Your task to perform on an android device: Search for the best rated book on Goodreads. Image 0: 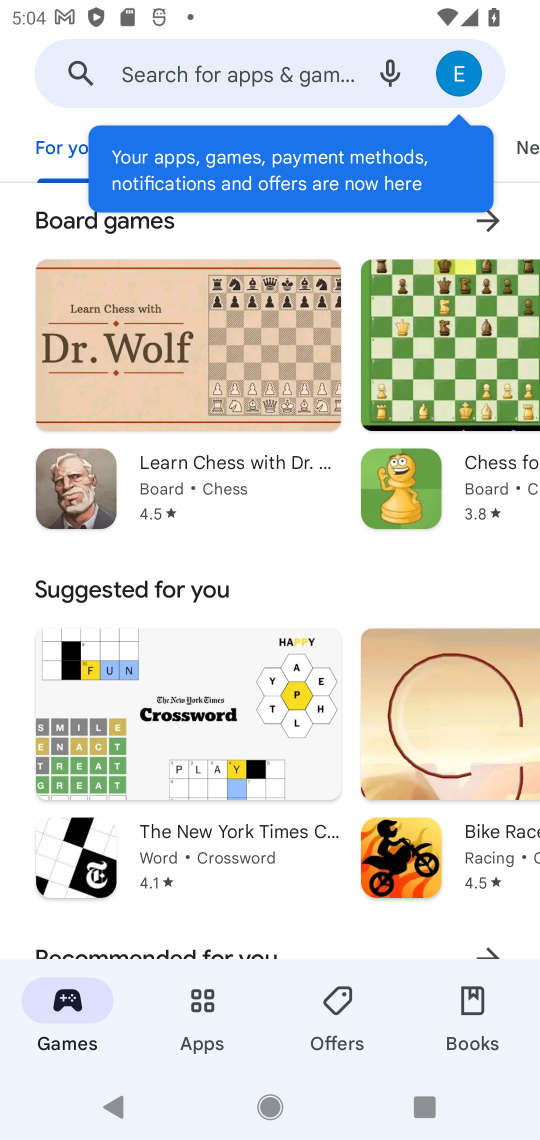
Step 0: press home button
Your task to perform on an android device: Search for the best rated book on Goodreads. Image 1: 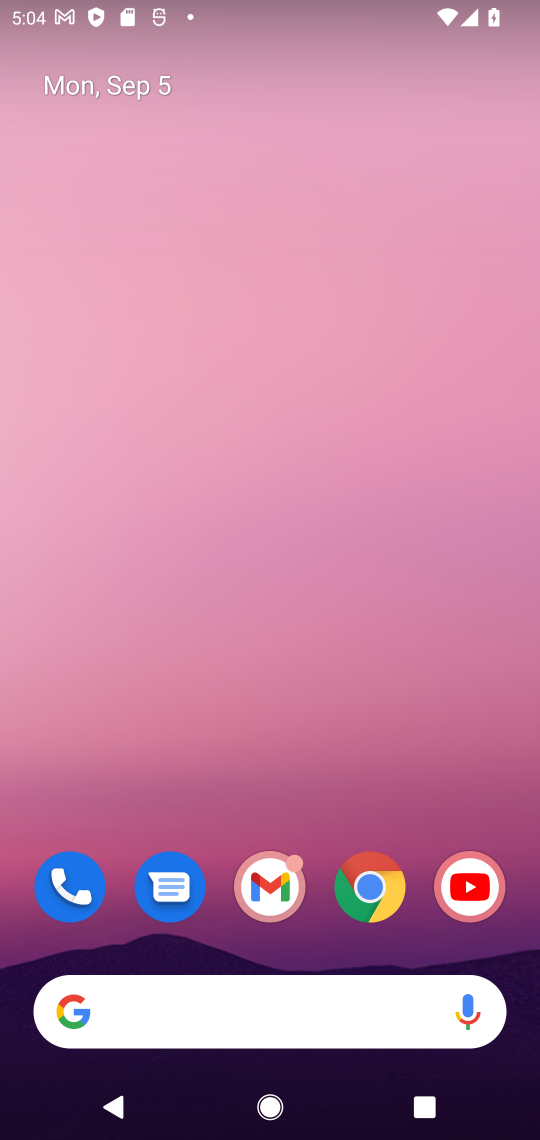
Step 1: click (363, 885)
Your task to perform on an android device: Search for the best rated book on Goodreads. Image 2: 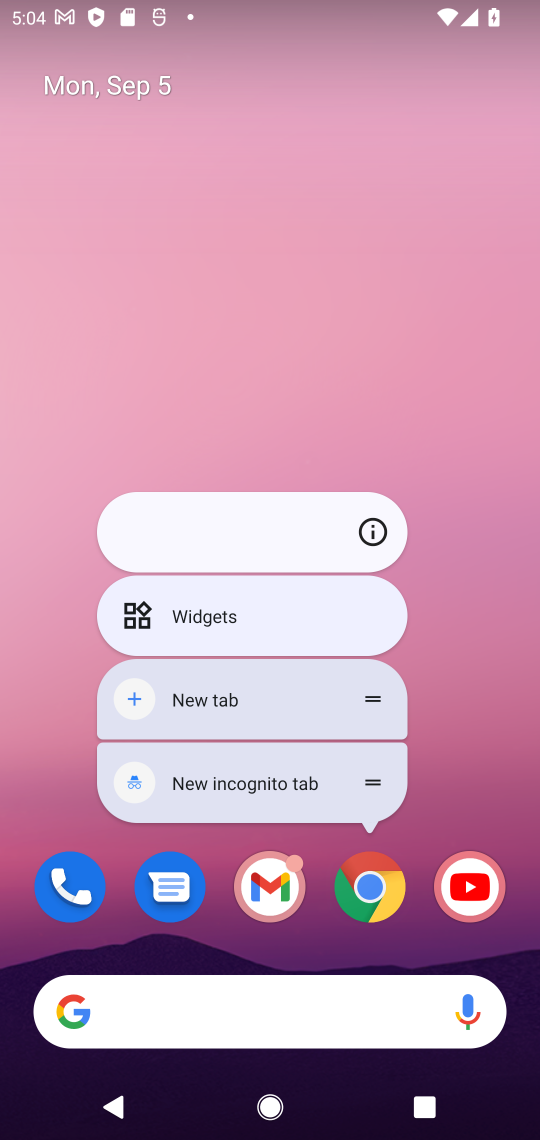
Step 2: click (371, 888)
Your task to perform on an android device: Search for the best rated book on Goodreads. Image 3: 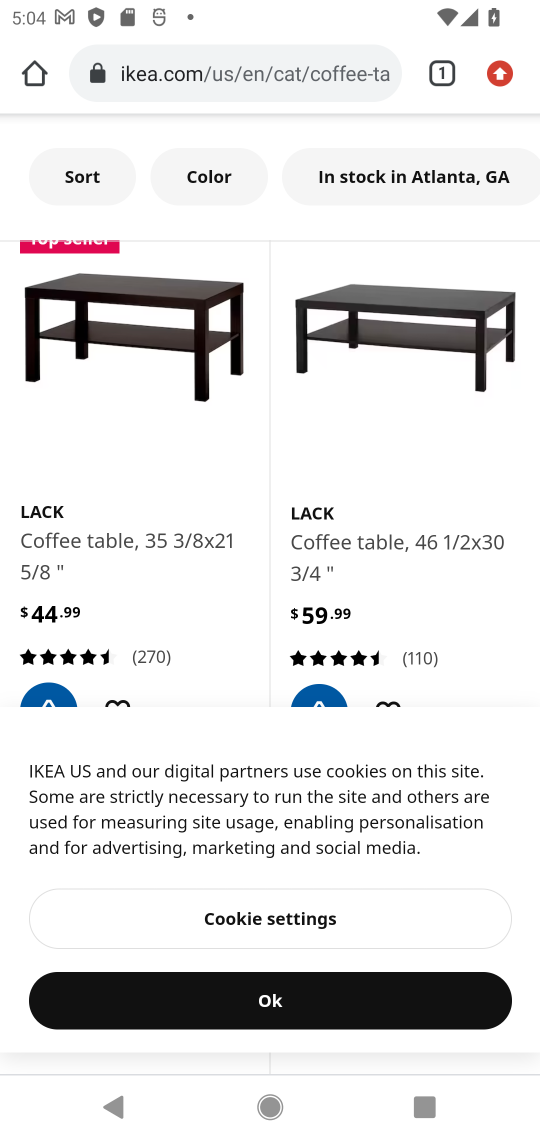
Step 3: click (278, 85)
Your task to perform on an android device: Search for the best rated book on Goodreads. Image 4: 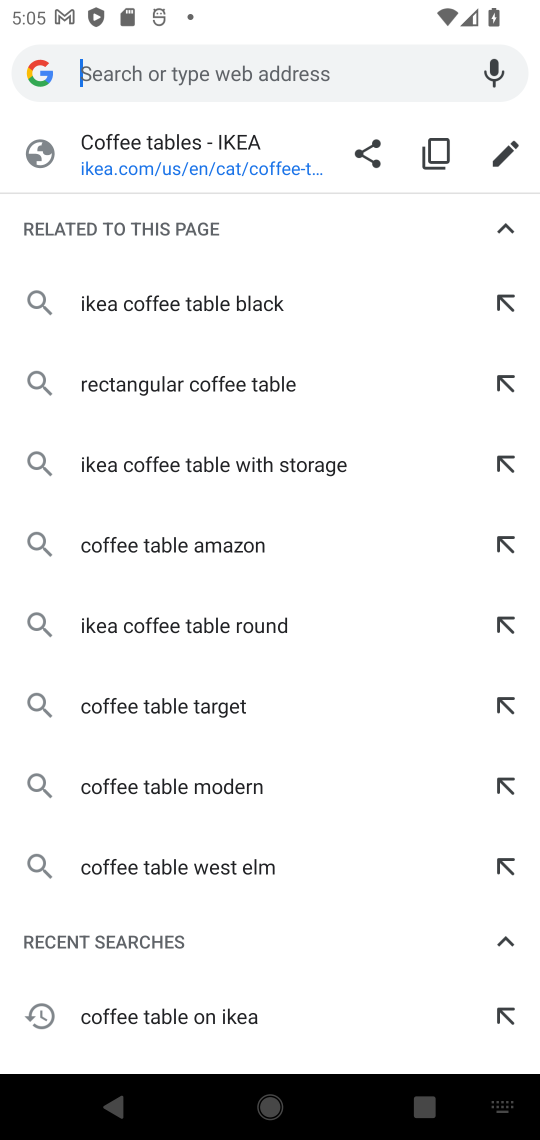
Step 4: type "best rated book on Goodreads"
Your task to perform on an android device: Search for the best rated book on Goodreads. Image 5: 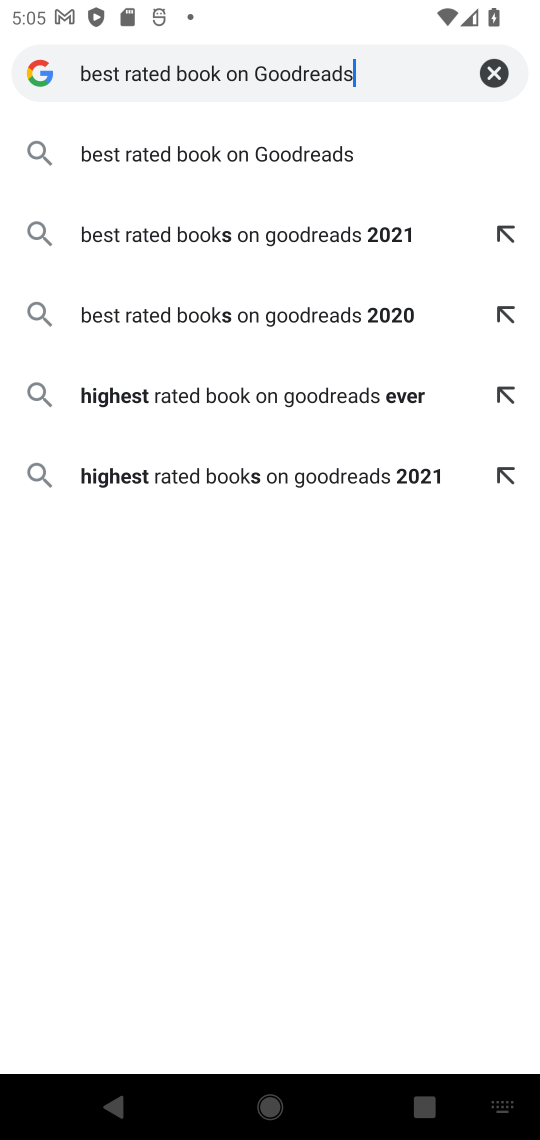
Step 5: press enter
Your task to perform on an android device: Search for the best rated book on Goodreads. Image 6: 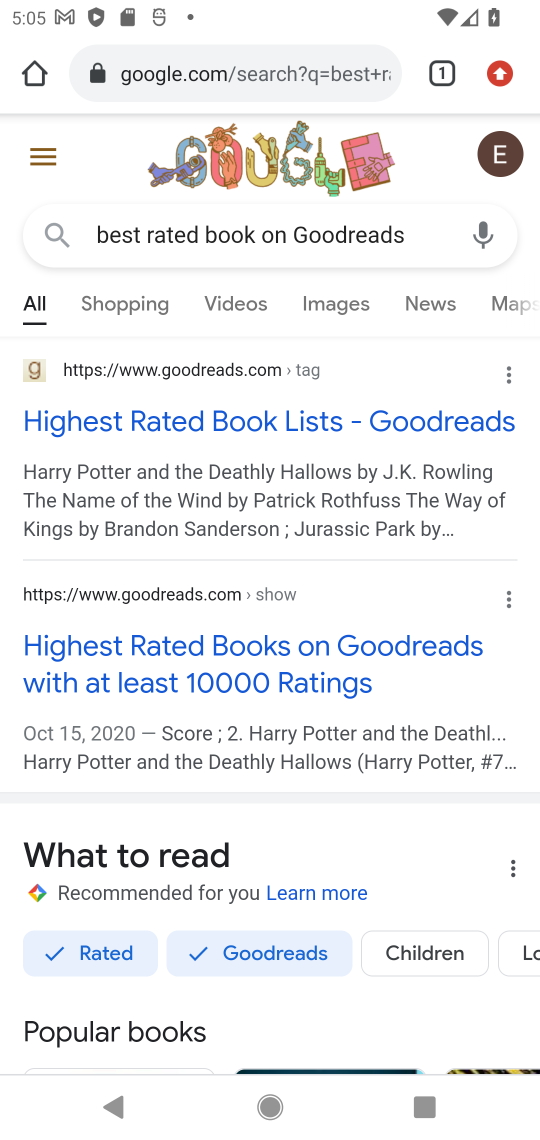
Step 6: click (246, 414)
Your task to perform on an android device: Search for the best rated book on Goodreads. Image 7: 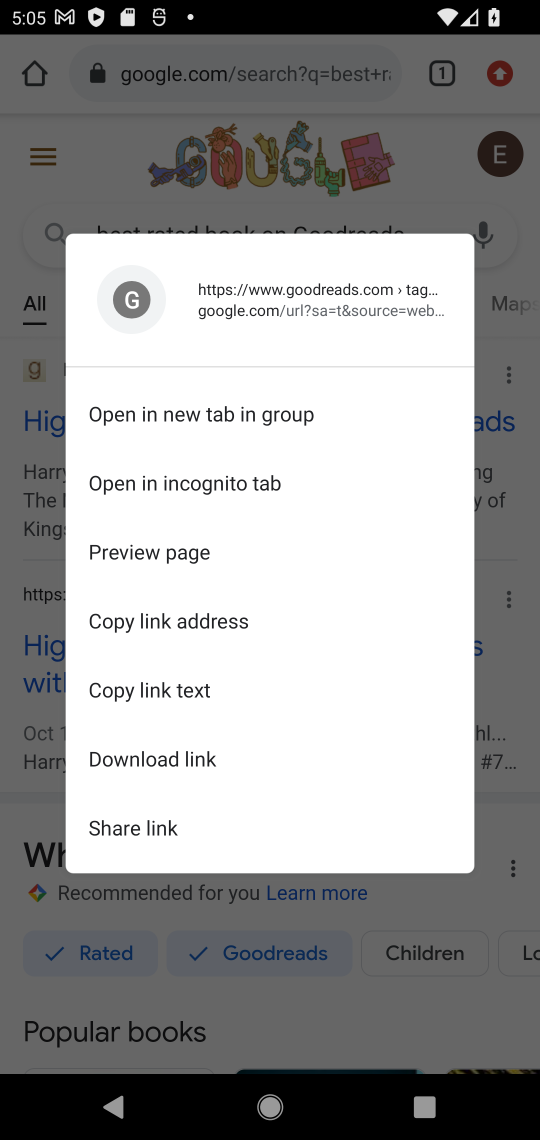
Step 7: click (312, 153)
Your task to perform on an android device: Search for the best rated book on Goodreads. Image 8: 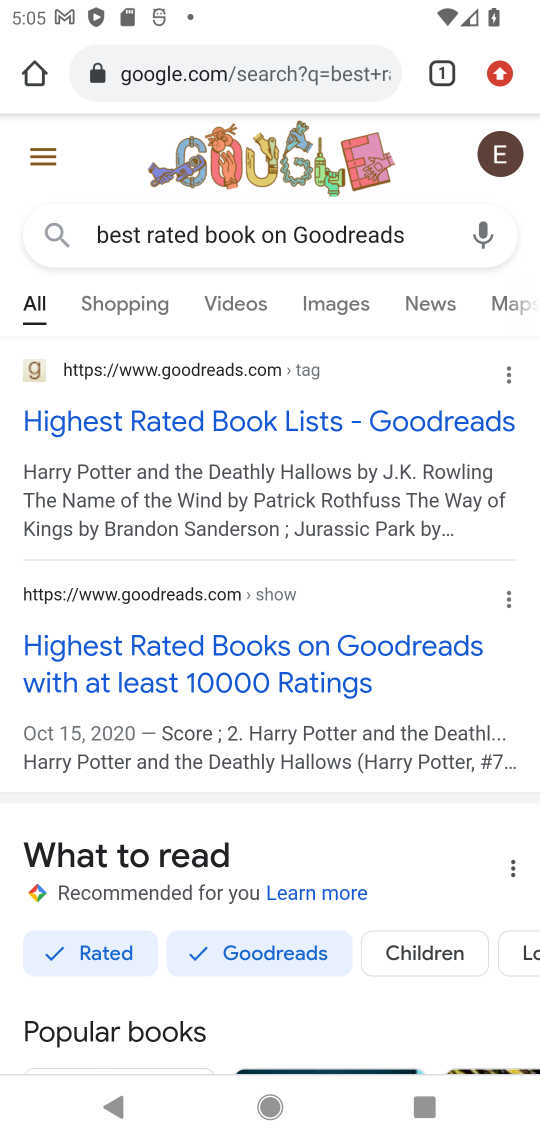
Step 8: click (267, 421)
Your task to perform on an android device: Search for the best rated book on Goodreads. Image 9: 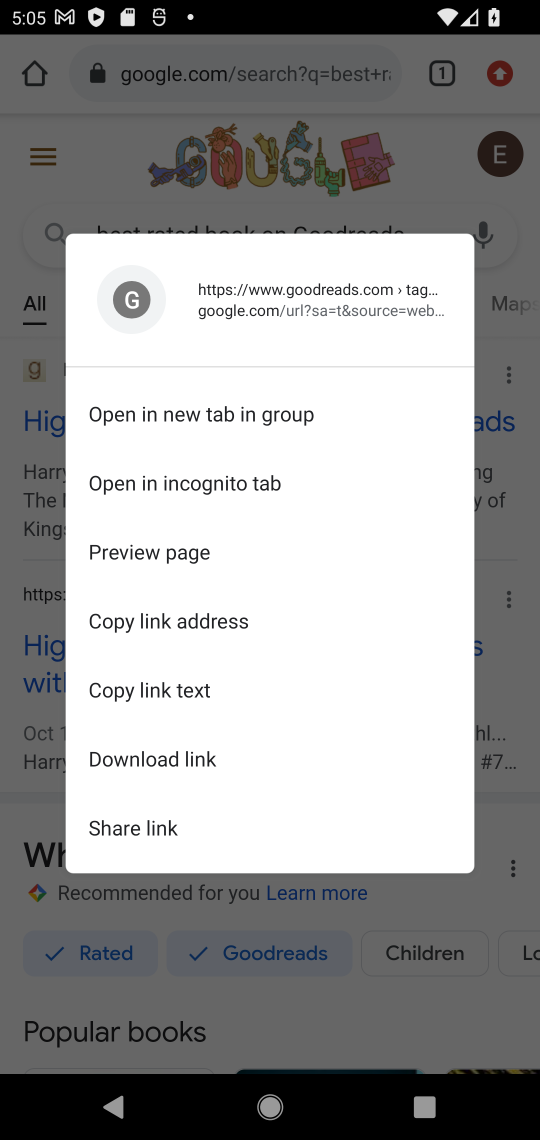
Step 9: click (18, 421)
Your task to perform on an android device: Search for the best rated book on Goodreads. Image 10: 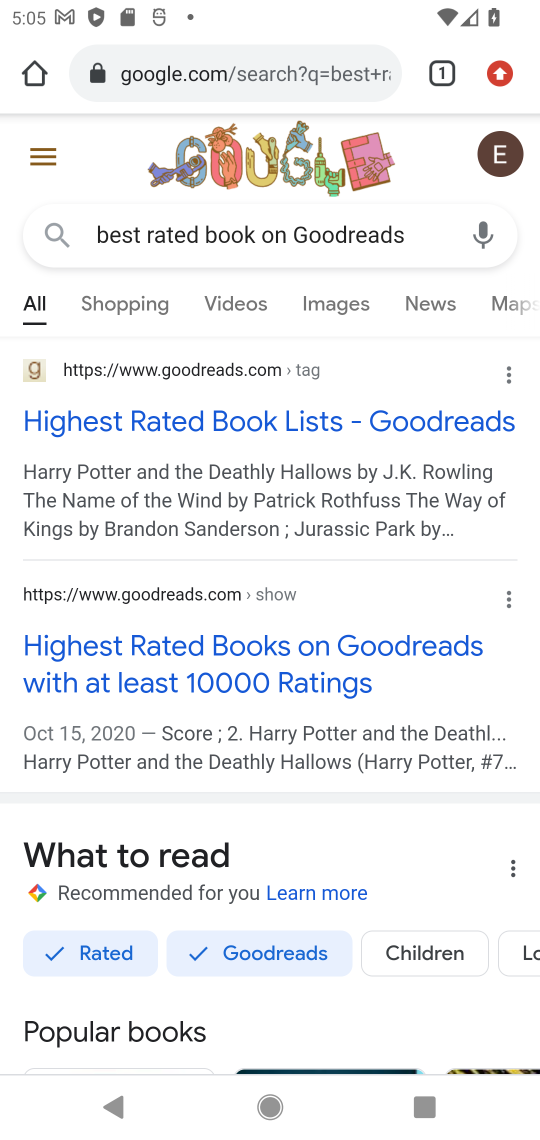
Step 10: click (34, 430)
Your task to perform on an android device: Search for the best rated book on Goodreads. Image 11: 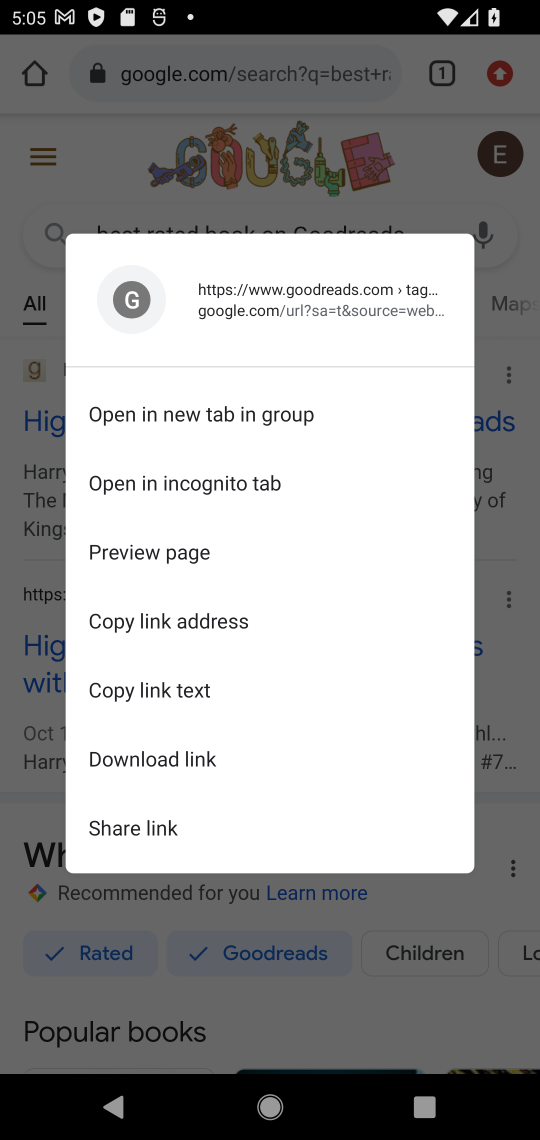
Step 11: click (485, 261)
Your task to perform on an android device: Search for the best rated book on Goodreads. Image 12: 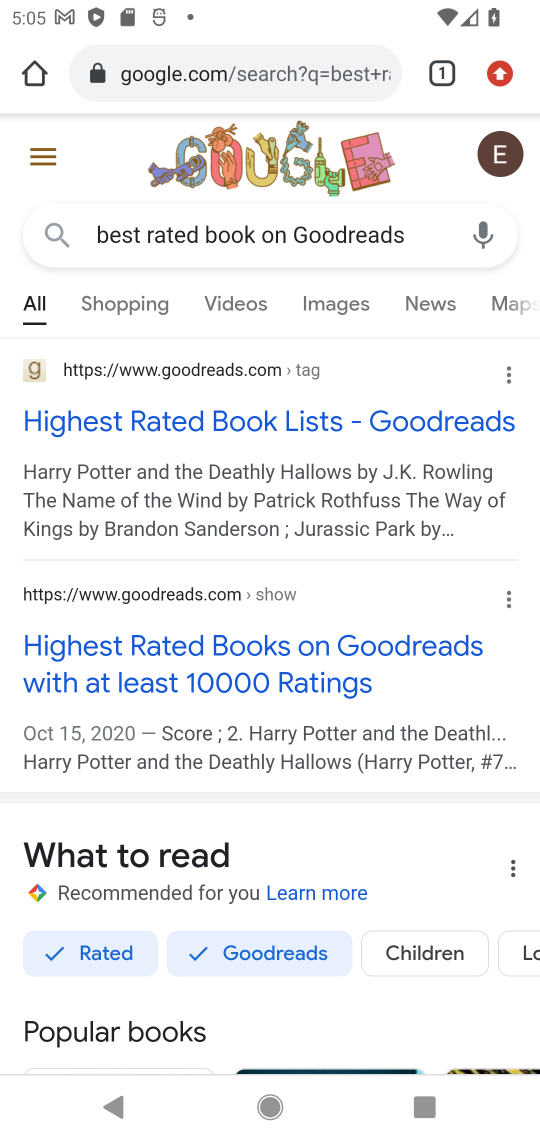
Step 12: click (302, 428)
Your task to perform on an android device: Search for the best rated book on Goodreads. Image 13: 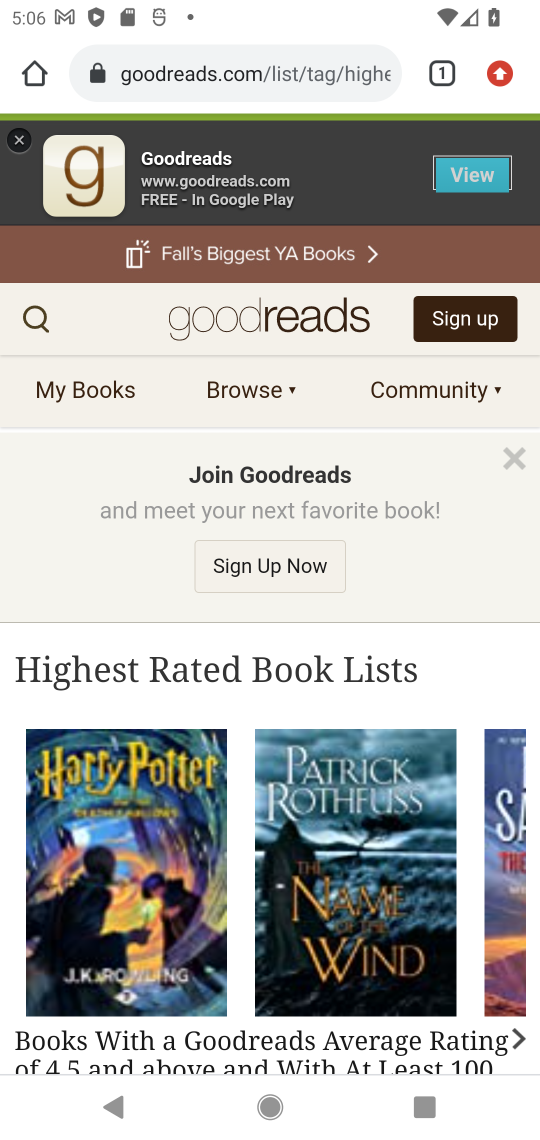
Step 13: task complete